Your task to perform on an android device: Open Android settings Image 0: 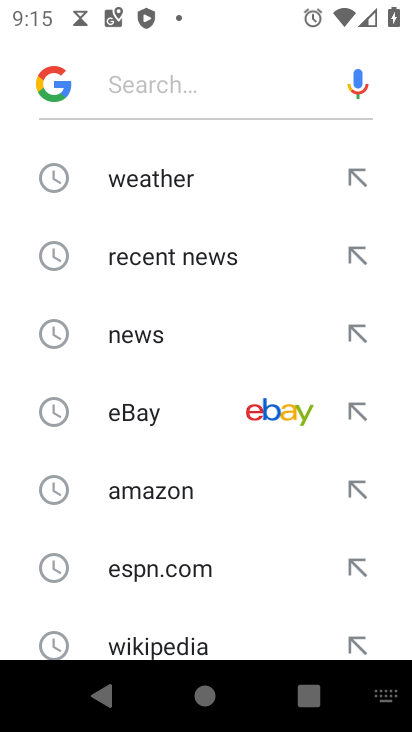
Step 0: press home button
Your task to perform on an android device: Open Android settings Image 1: 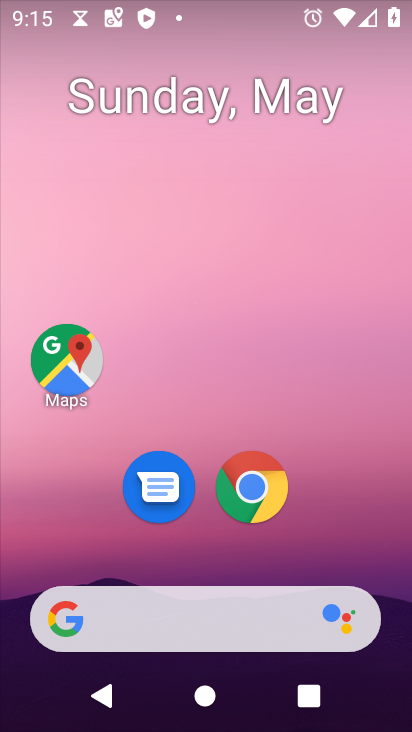
Step 1: drag from (344, 445) to (334, 0)
Your task to perform on an android device: Open Android settings Image 2: 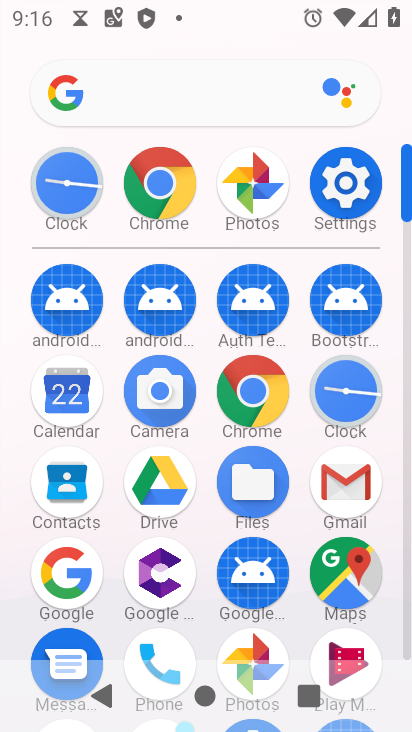
Step 2: click (356, 178)
Your task to perform on an android device: Open Android settings Image 3: 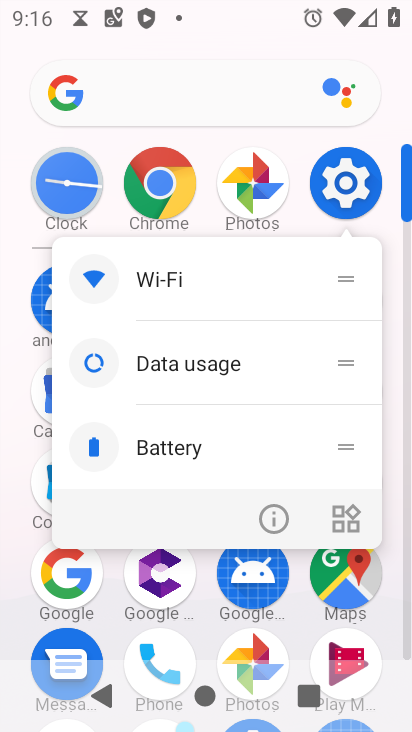
Step 3: click (356, 178)
Your task to perform on an android device: Open Android settings Image 4: 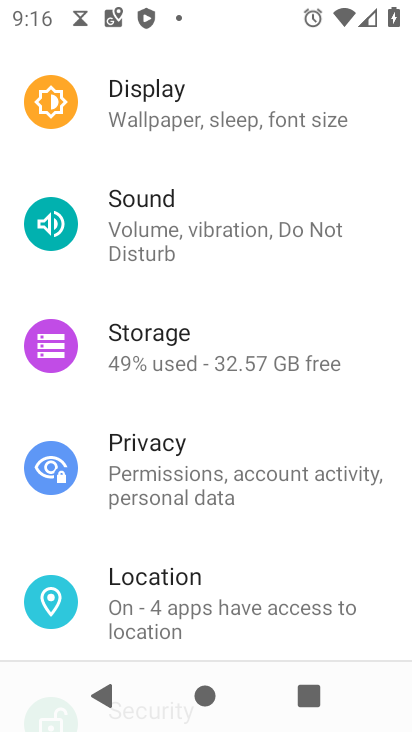
Step 4: task complete